Your task to perform on an android device: Open my contact list Image 0: 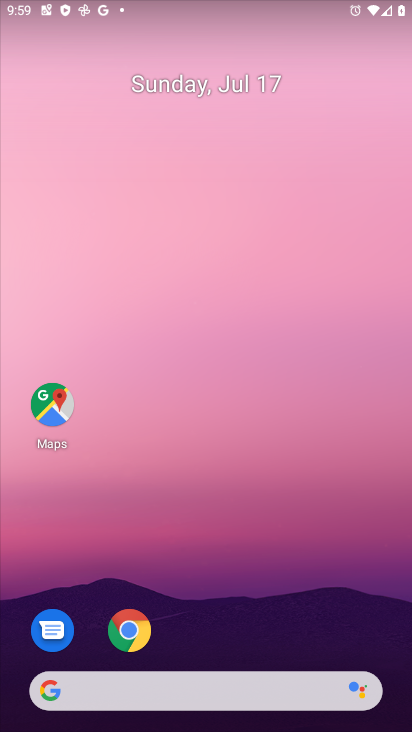
Step 0: drag from (182, 623) to (200, 205)
Your task to perform on an android device: Open my contact list Image 1: 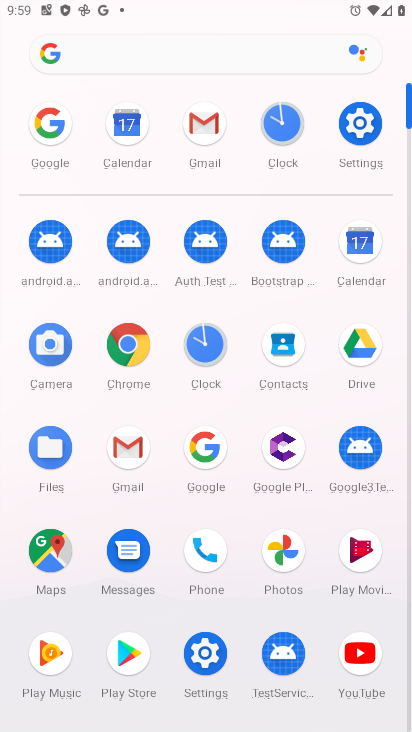
Step 1: click (283, 347)
Your task to perform on an android device: Open my contact list Image 2: 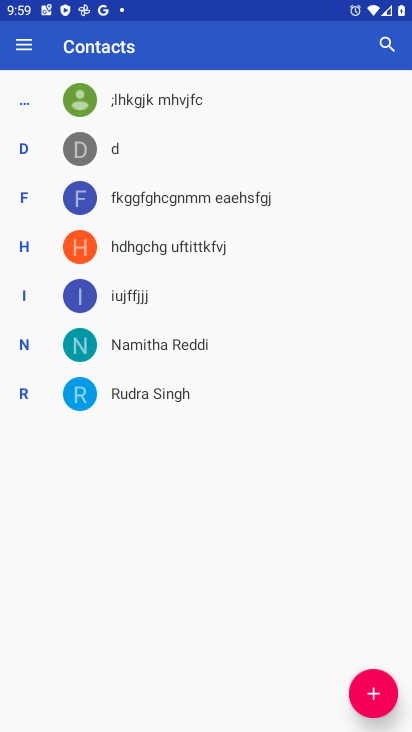
Step 2: task complete